Your task to perform on an android device: delete the emails in spam in the gmail app Image 0: 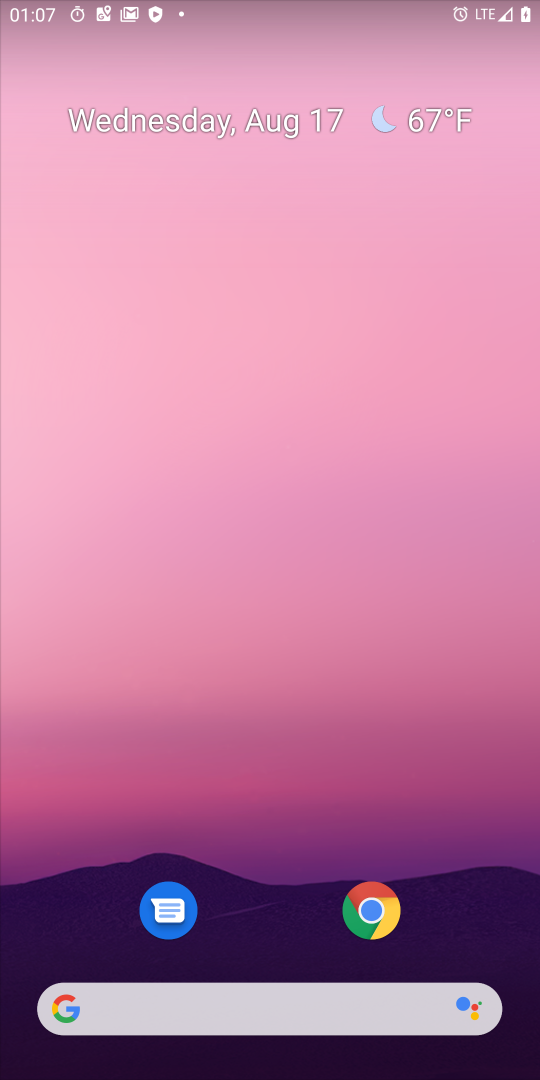
Step 0: drag from (221, 915) to (376, 89)
Your task to perform on an android device: delete the emails in spam in the gmail app Image 1: 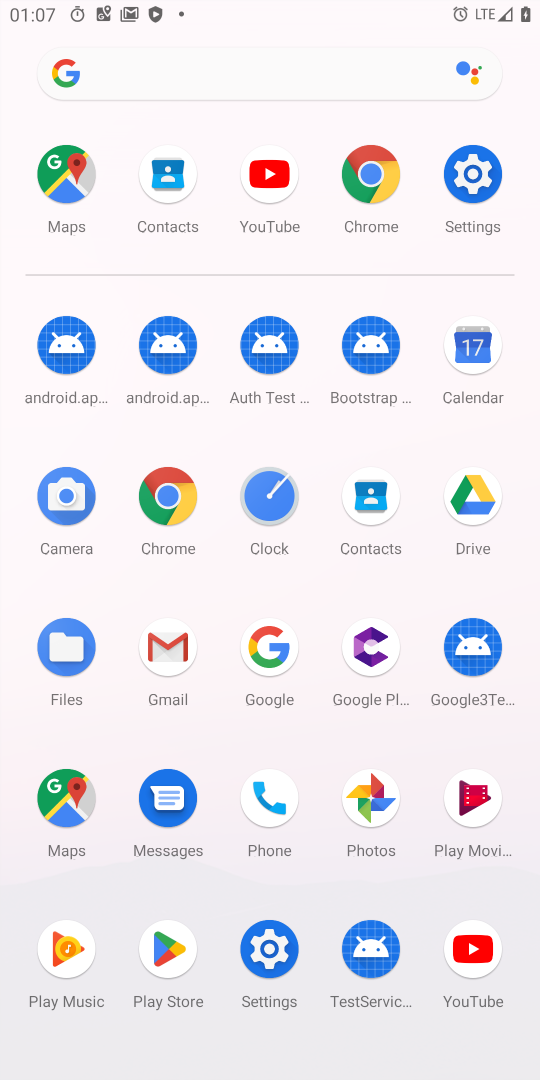
Step 1: click (162, 642)
Your task to perform on an android device: delete the emails in spam in the gmail app Image 2: 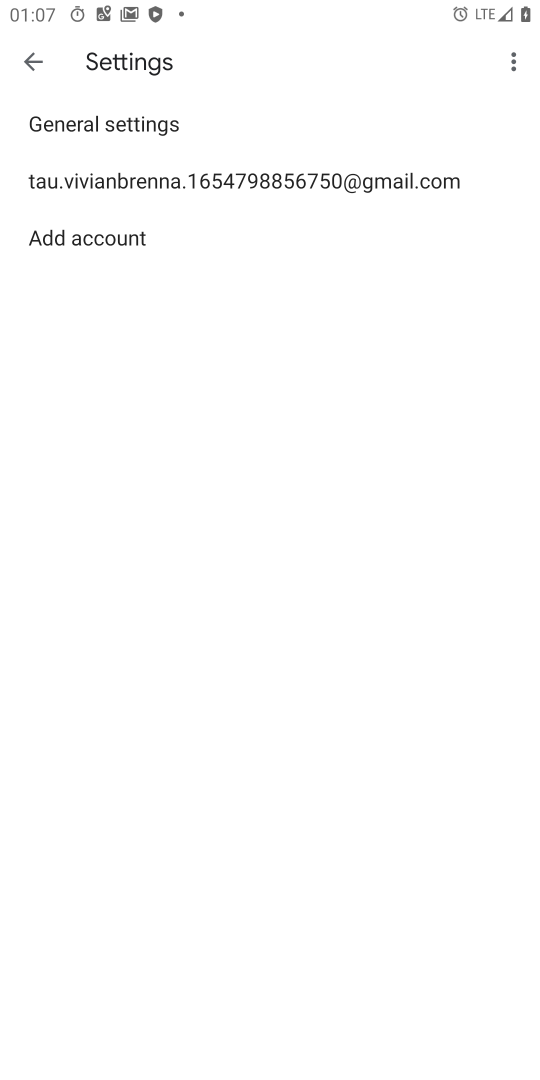
Step 2: task complete